Your task to perform on an android device: set the timer Image 0: 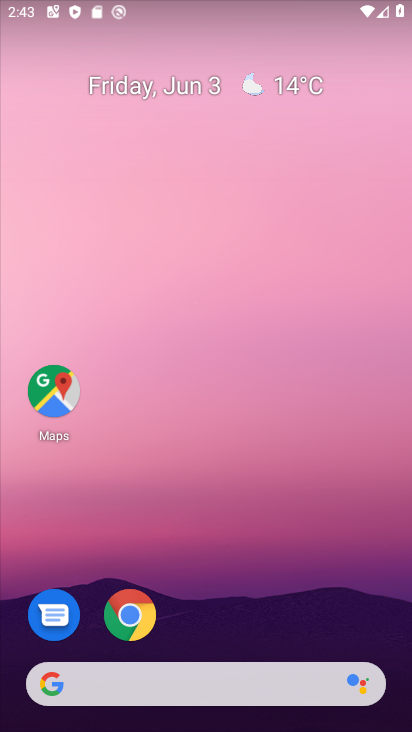
Step 0: press home button
Your task to perform on an android device: set the timer Image 1: 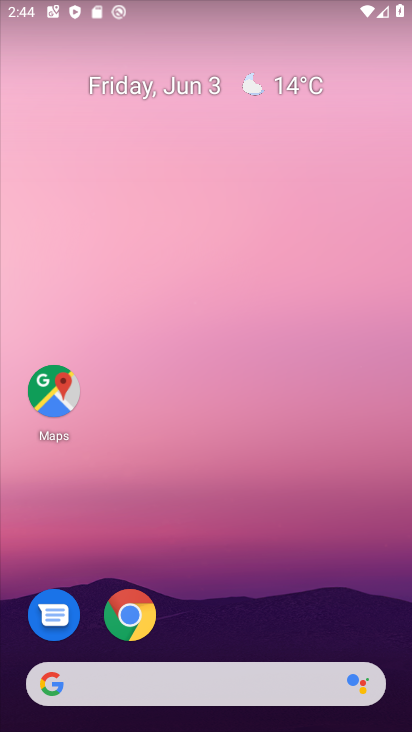
Step 1: click (180, 45)
Your task to perform on an android device: set the timer Image 2: 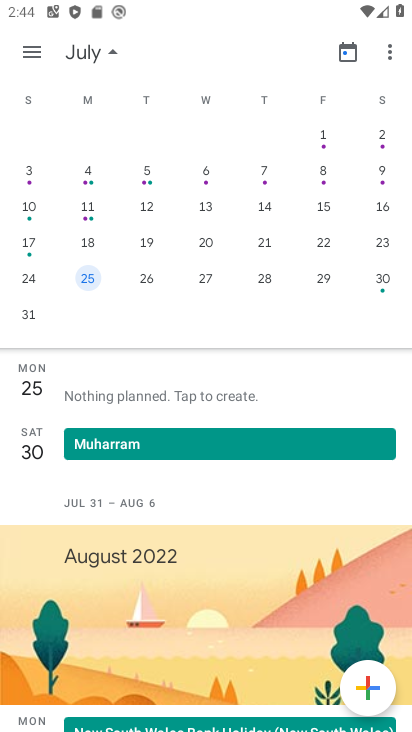
Step 2: press home button
Your task to perform on an android device: set the timer Image 3: 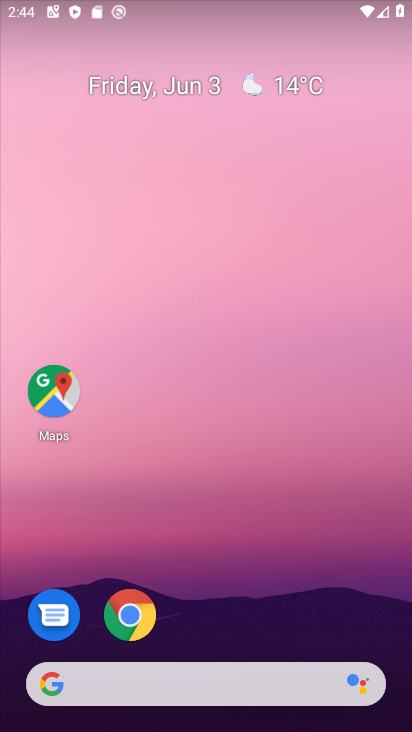
Step 3: drag from (267, 621) to (182, 3)
Your task to perform on an android device: set the timer Image 4: 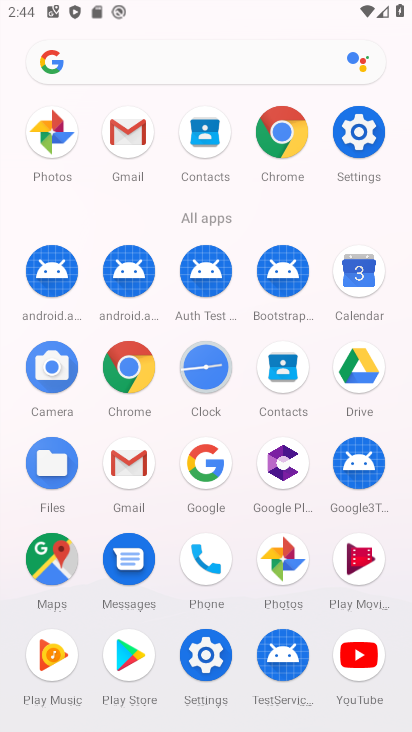
Step 4: click (212, 376)
Your task to perform on an android device: set the timer Image 5: 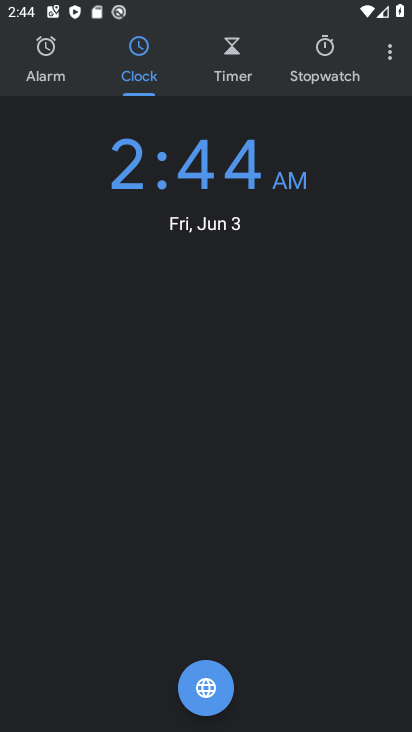
Step 5: click (228, 50)
Your task to perform on an android device: set the timer Image 6: 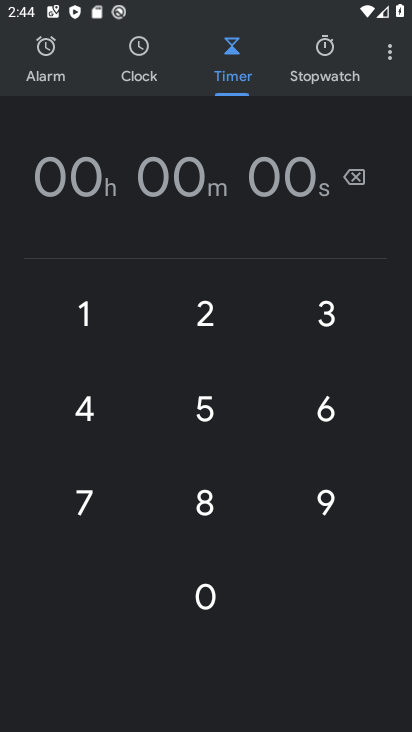
Step 6: click (89, 311)
Your task to perform on an android device: set the timer Image 7: 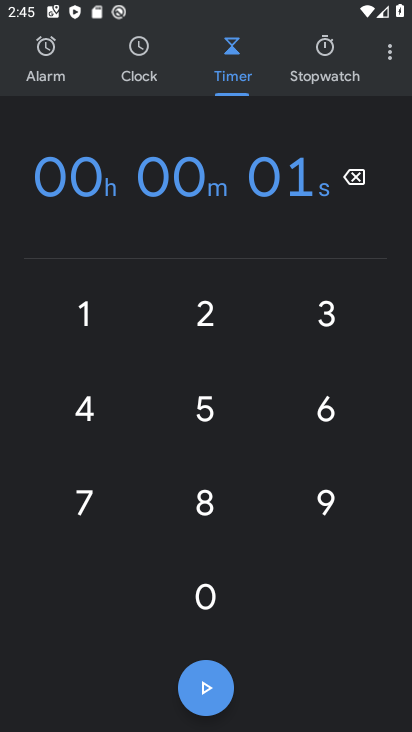
Step 7: click (77, 300)
Your task to perform on an android device: set the timer Image 8: 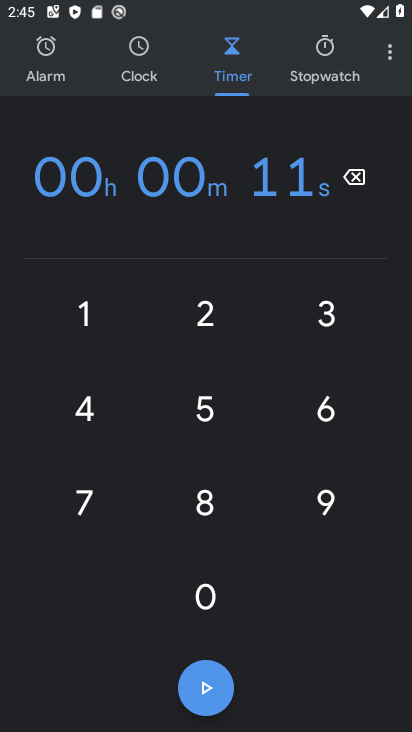
Step 8: click (215, 319)
Your task to perform on an android device: set the timer Image 9: 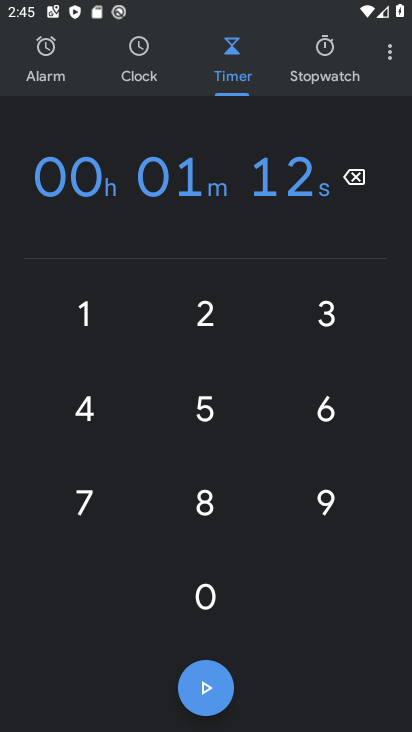
Step 9: click (205, 399)
Your task to perform on an android device: set the timer Image 10: 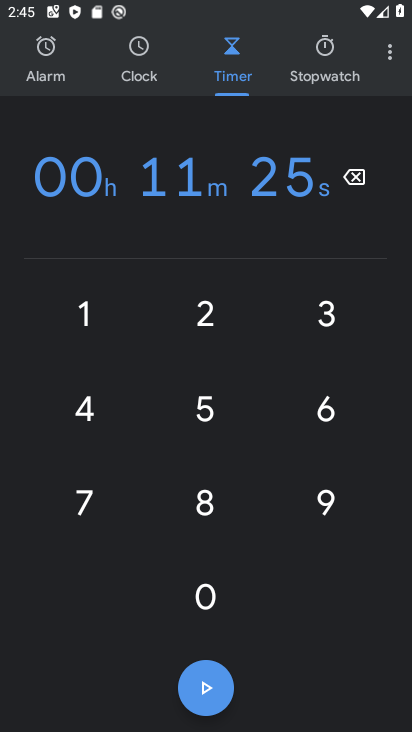
Step 10: drag from (320, 418) to (308, 478)
Your task to perform on an android device: set the timer Image 11: 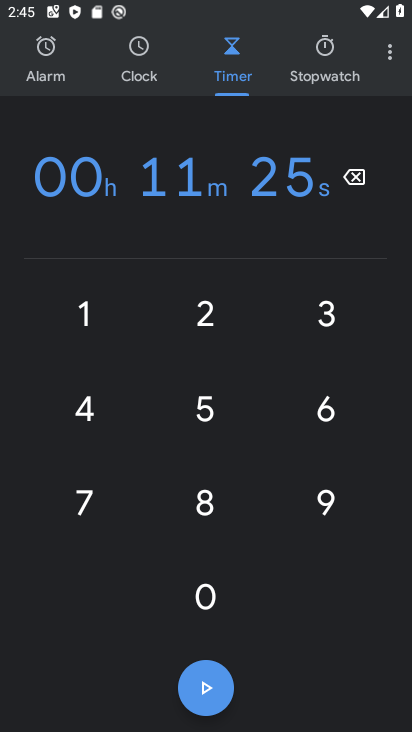
Step 11: click (311, 508)
Your task to perform on an android device: set the timer Image 12: 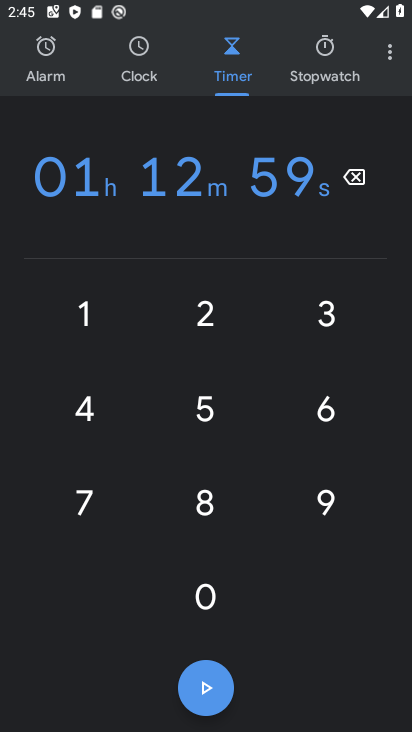
Step 12: click (206, 688)
Your task to perform on an android device: set the timer Image 13: 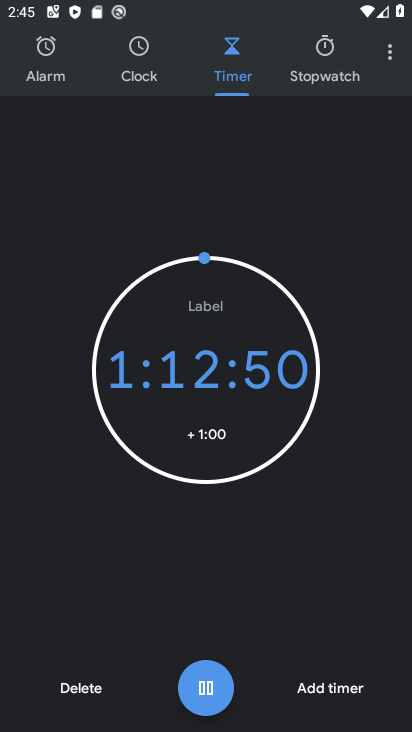
Step 13: task complete